Your task to perform on an android device: see tabs open on other devices in the chrome app Image 0: 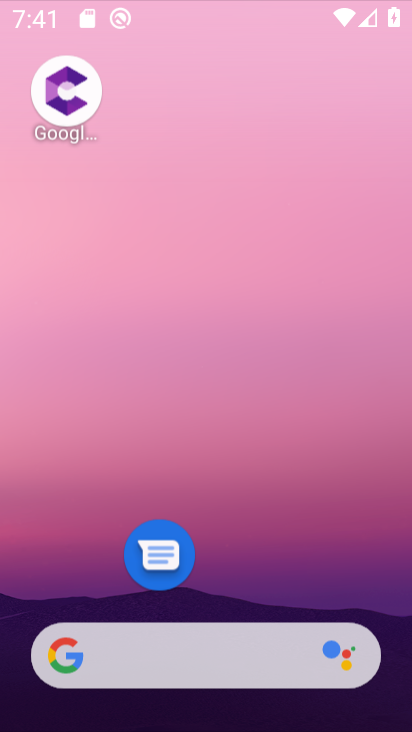
Step 0: click (223, 45)
Your task to perform on an android device: see tabs open on other devices in the chrome app Image 1: 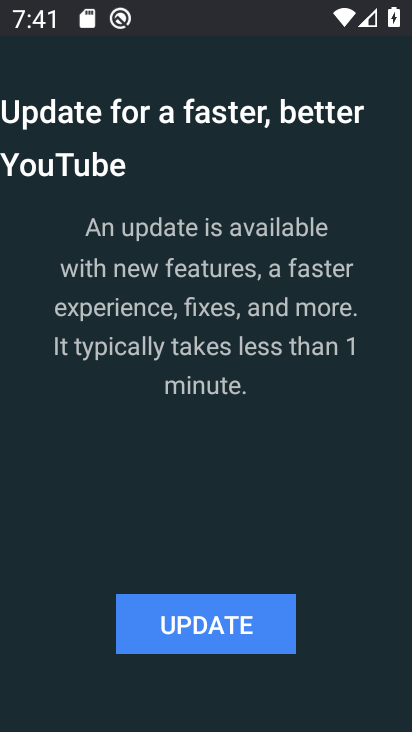
Step 1: press home button
Your task to perform on an android device: see tabs open on other devices in the chrome app Image 2: 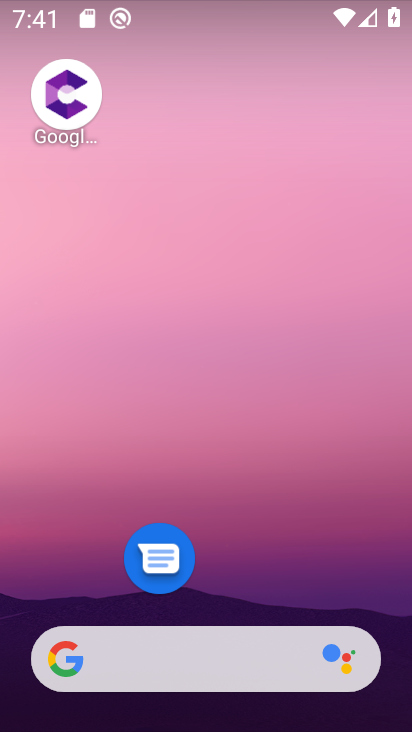
Step 2: drag from (232, 574) to (267, 5)
Your task to perform on an android device: see tabs open on other devices in the chrome app Image 3: 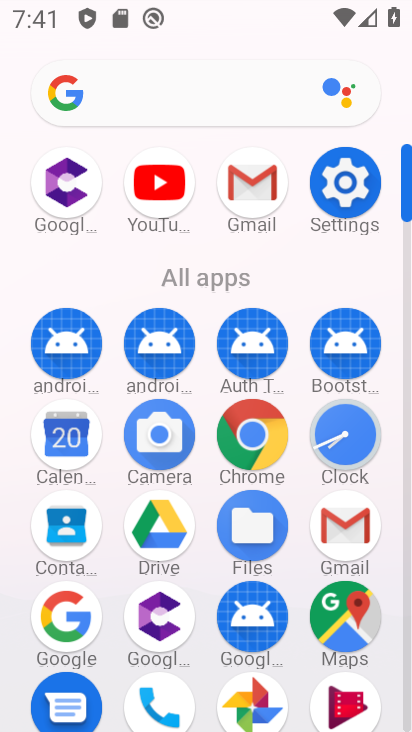
Step 3: click (251, 431)
Your task to perform on an android device: see tabs open on other devices in the chrome app Image 4: 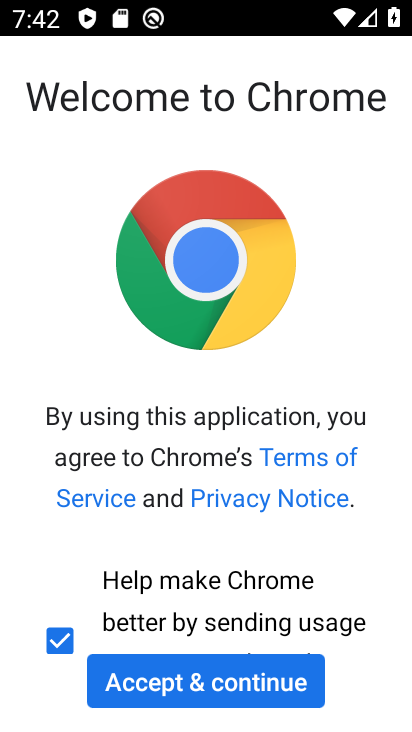
Step 4: click (182, 685)
Your task to perform on an android device: see tabs open on other devices in the chrome app Image 5: 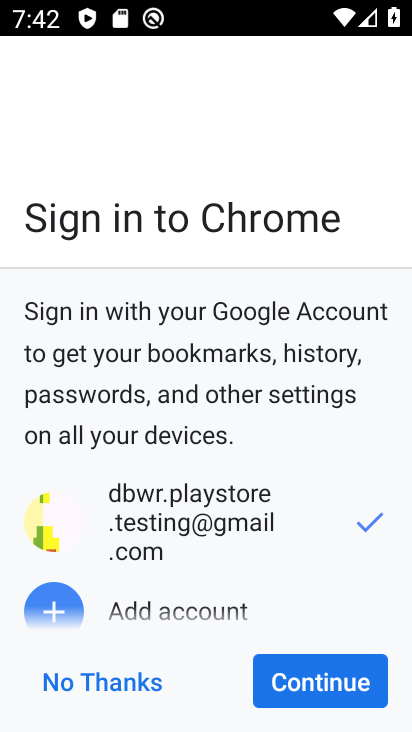
Step 5: click (327, 673)
Your task to perform on an android device: see tabs open on other devices in the chrome app Image 6: 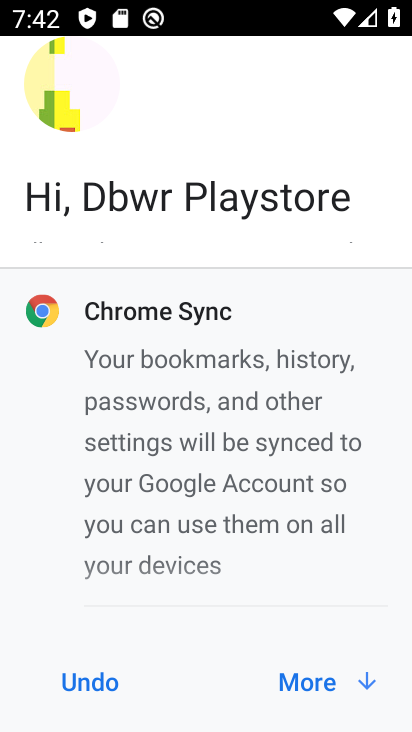
Step 6: click (316, 681)
Your task to perform on an android device: see tabs open on other devices in the chrome app Image 7: 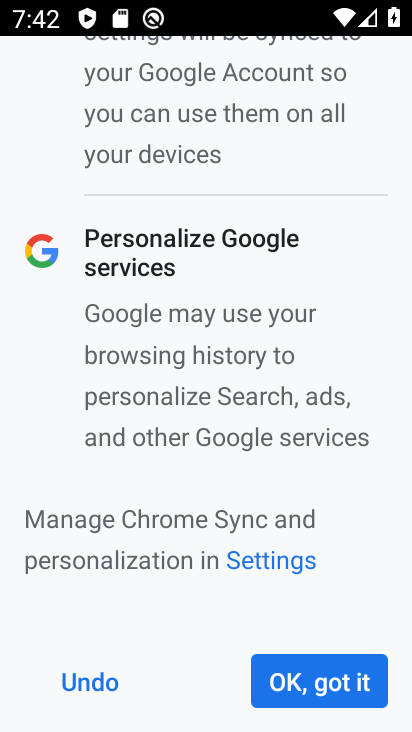
Step 7: click (318, 668)
Your task to perform on an android device: see tabs open on other devices in the chrome app Image 8: 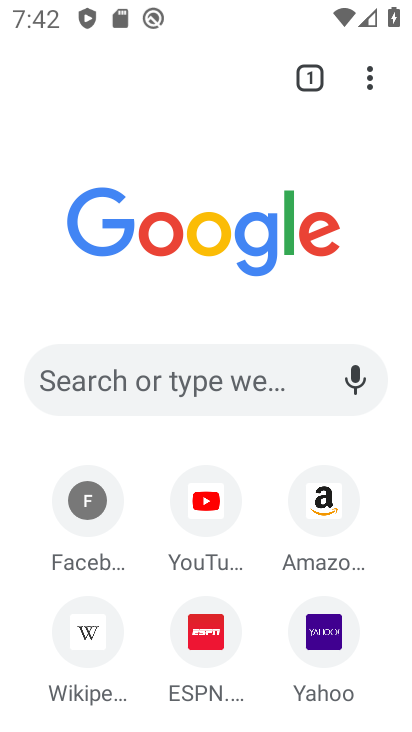
Step 8: click (370, 72)
Your task to perform on an android device: see tabs open on other devices in the chrome app Image 9: 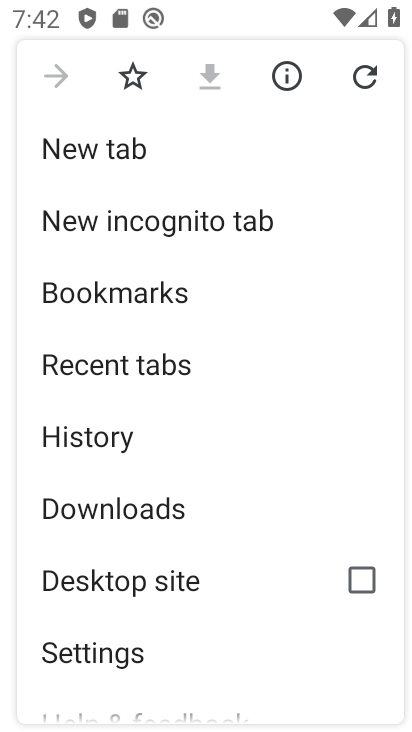
Step 9: click (194, 365)
Your task to perform on an android device: see tabs open on other devices in the chrome app Image 10: 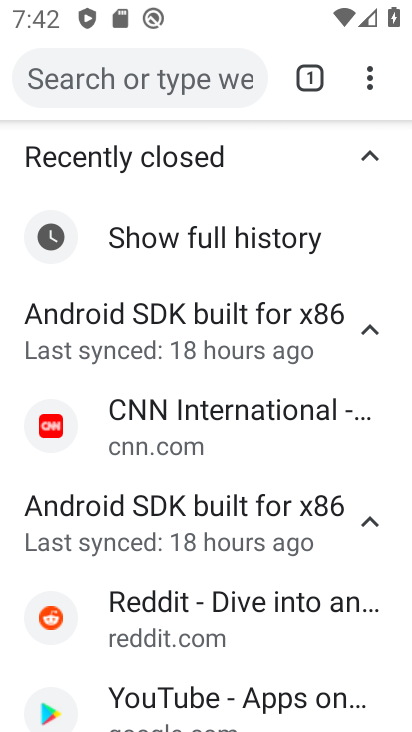
Step 10: task complete